Your task to perform on an android device: change the clock display to digital Image 0: 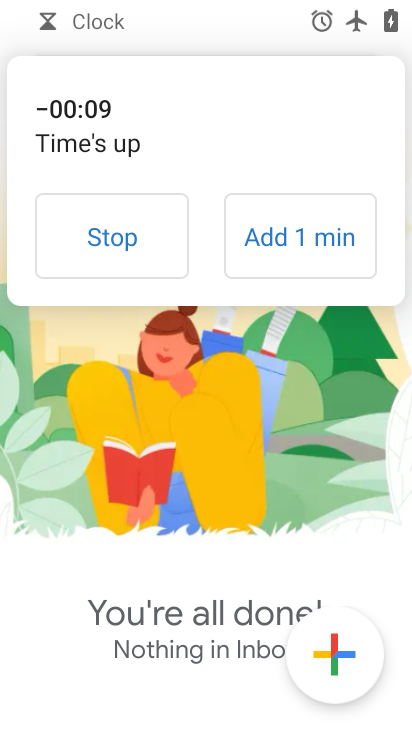
Step 0: press home button
Your task to perform on an android device: change the clock display to digital Image 1: 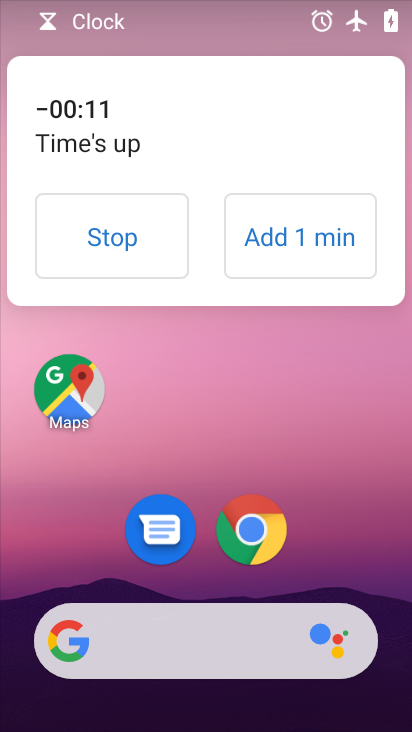
Step 1: drag from (203, 721) to (196, 196)
Your task to perform on an android device: change the clock display to digital Image 2: 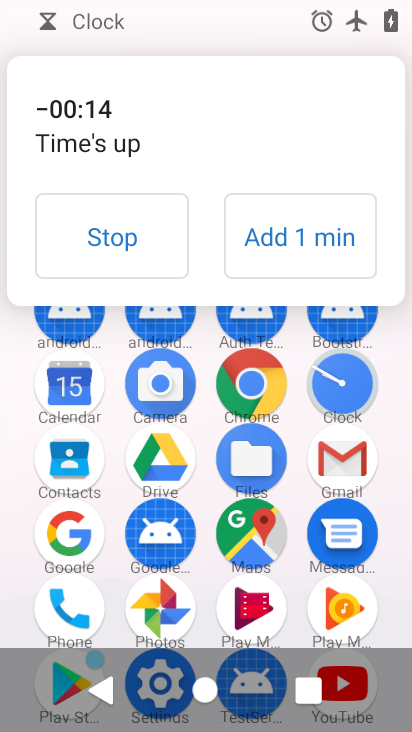
Step 2: click (328, 395)
Your task to perform on an android device: change the clock display to digital Image 3: 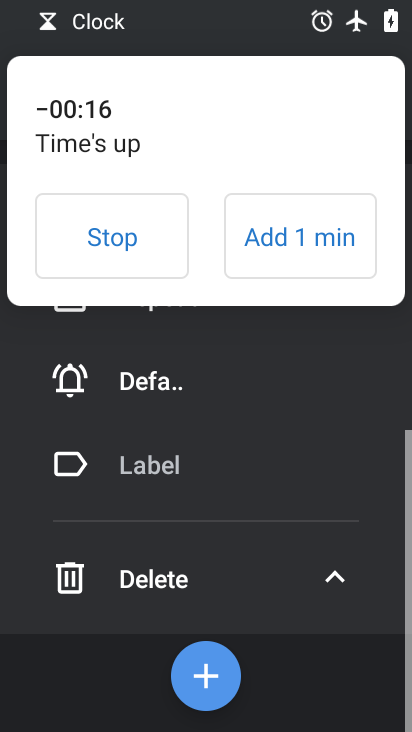
Step 3: click (135, 240)
Your task to perform on an android device: change the clock display to digital Image 4: 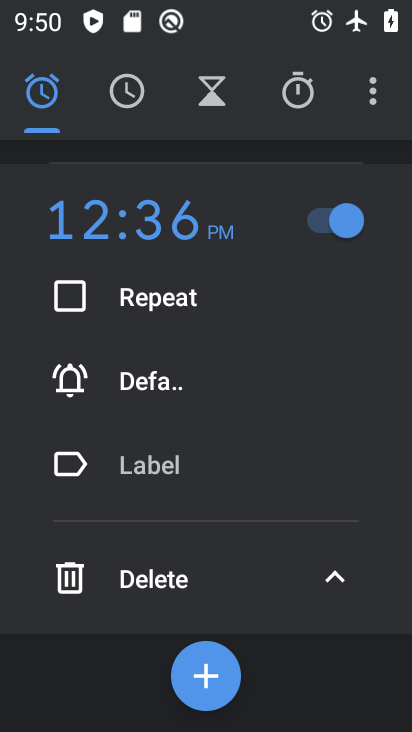
Step 4: click (373, 99)
Your task to perform on an android device: change the clock display to digital Image 5: 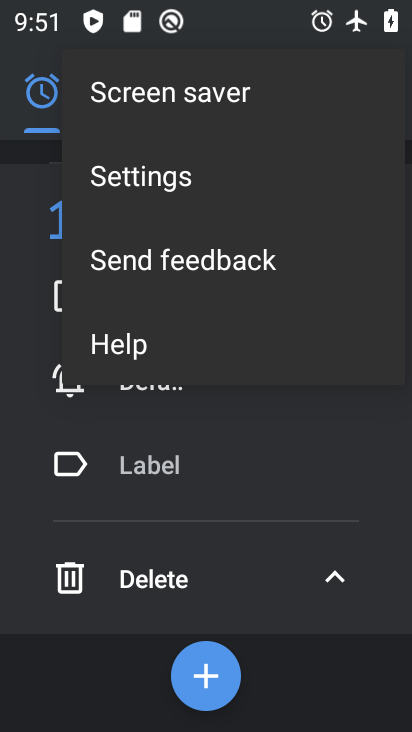
Step 5: click (175, 180)
Your task to perform on an android device: change the clock display to digital Image 6: 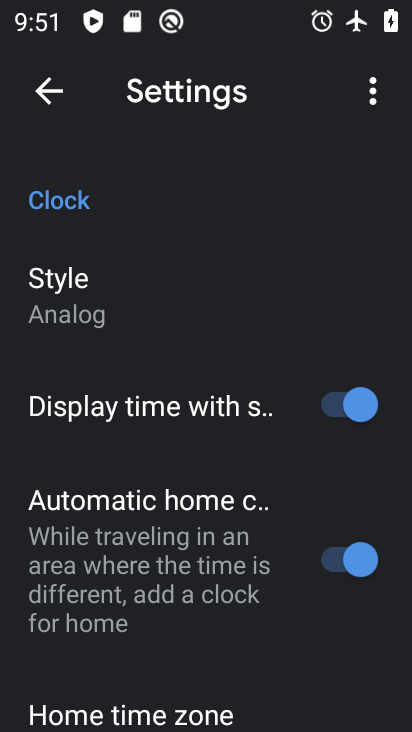
Step 6: drag from (146, 665) to (153, 442)
Your task to perform on an android device: change the clock display to digital Image 7: 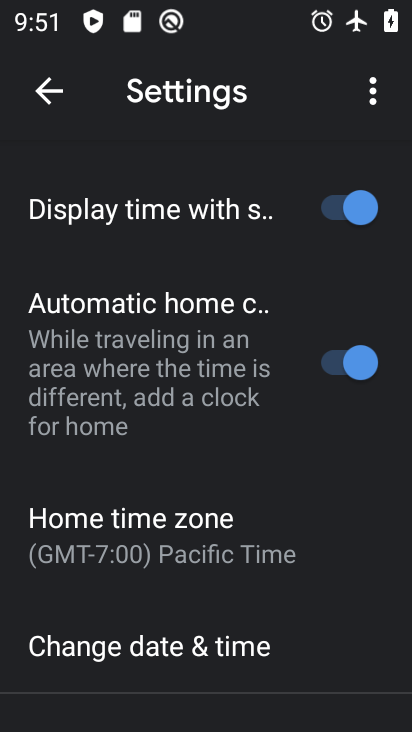
Step 7: drag from (190, 180) to (195, 467)
Your task to perform on an android device: change the clock display to digital Image 8: 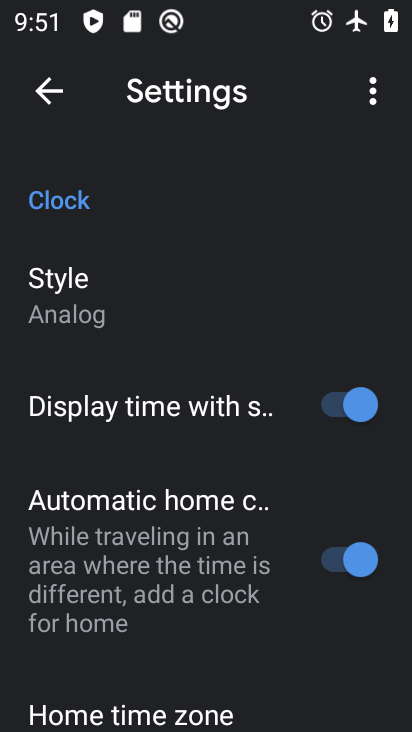
Step 8: click (100, 308)
Your task to perform on an android device: change the clock display to digital Image 9: 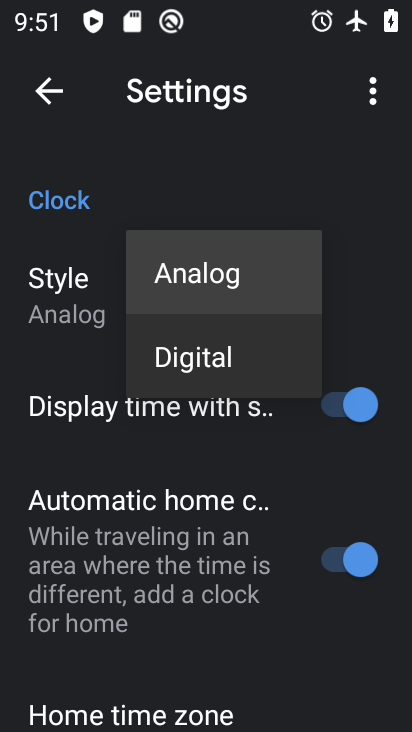
Step 9: click (180, 352)
Your task to perform on an android device: change the clock display to digital Image 10: 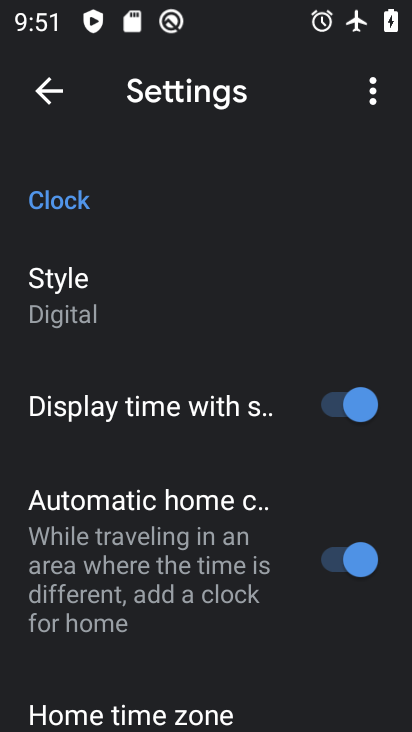
Step 10: task complete